Your task to perform on an android device: all mails in gmail Image 0: 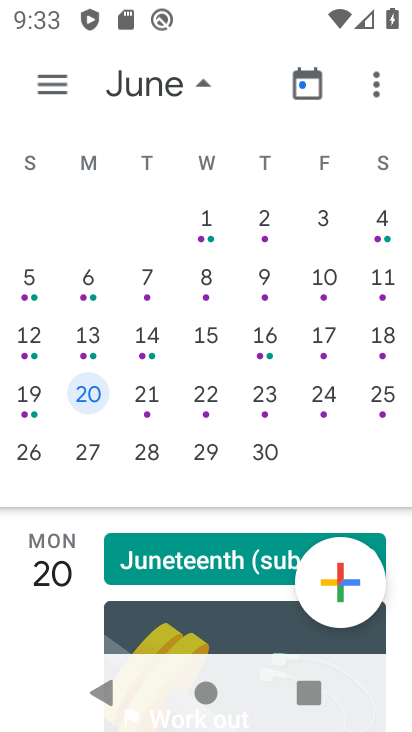
Step 0: press home button
Your task to perform on an android device: all mails in gmail Image 1: 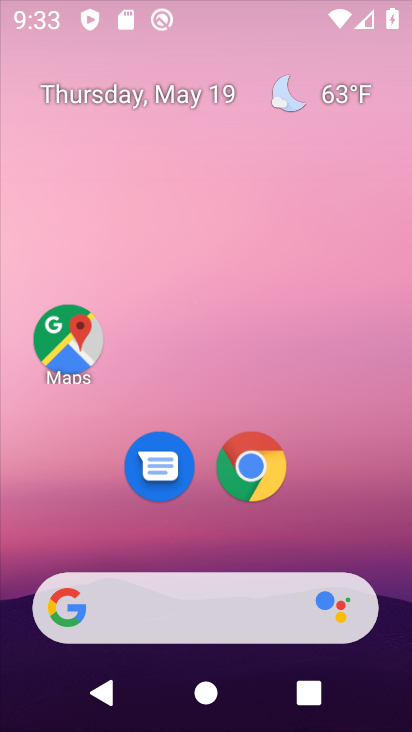
Step 1: drag from (394, 614) to (289, 111)
Your task to perform on an android device: all mails in gmail Image 2: 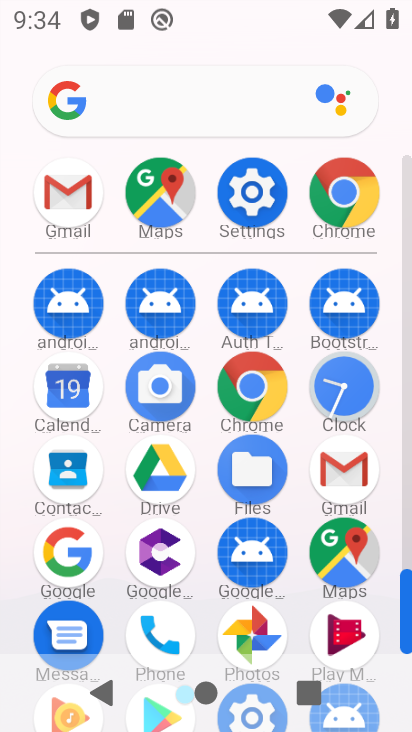
Step 2: click (87, 198)
Your task to perform on an android device: all mails in gmail Image 3: 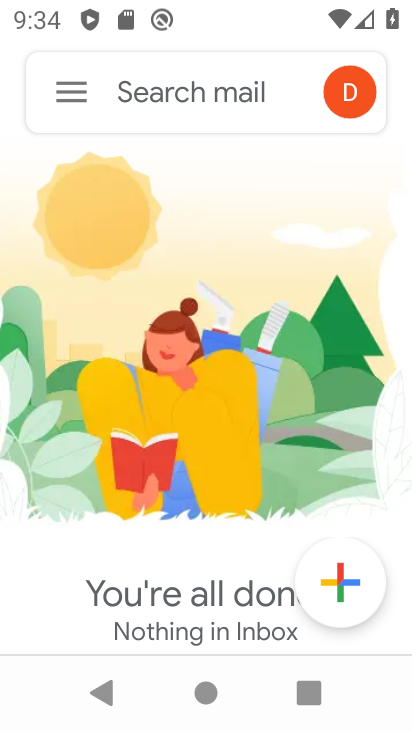
Step 3: click (75, 107)
Your task to perform on an android device: all mails in gmail Image 4: 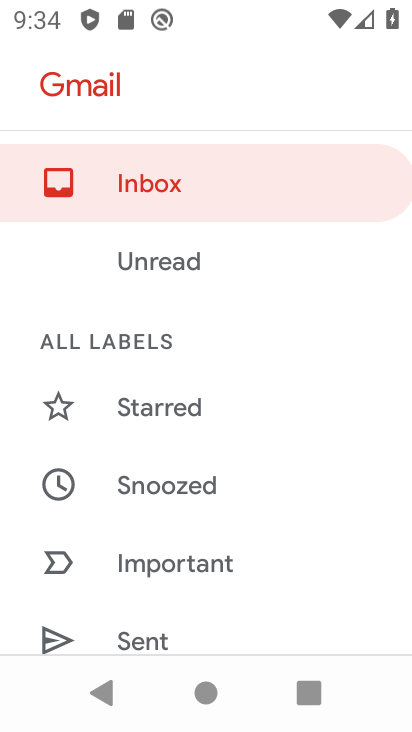
Step 4: drag from (177, 634) to (239, 100)
Your task to perform on an android device: all mails in gmail Image 5: 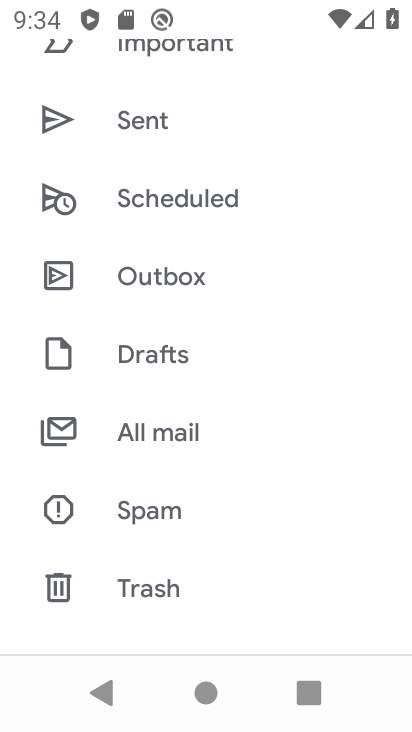
Step 5: click (218, 419)
Your task to perform on an android device: all mails in gmail Image 6: 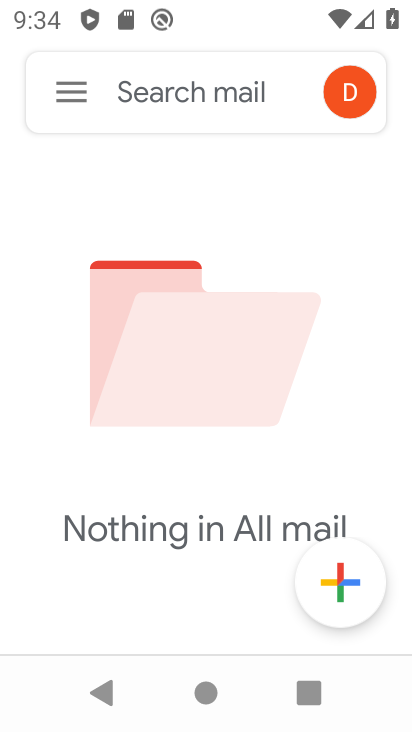
Step 6: task complete